Your task to perform on an android device: toggle priority inbox in the gmail app Image 0: 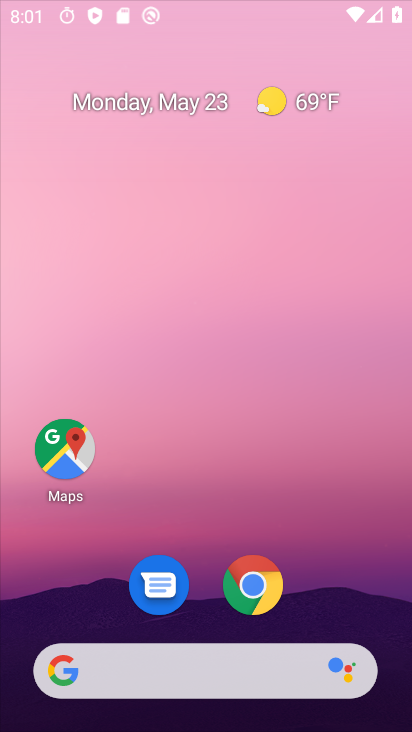
Step 0: drag from (238, 499) to (246, 58)
Your task to perform on an android device: toggle priority inbox in the gmail app Image 1: 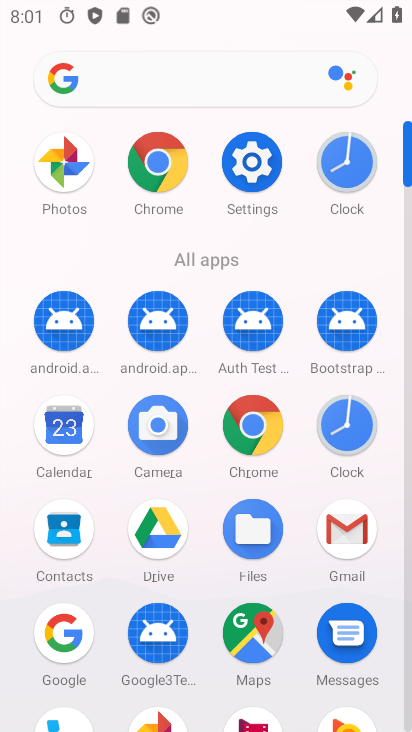
Step 1: click (249, 155)
Your task to perform on an android device: toggle priority inbox in the gmail app Image 2: 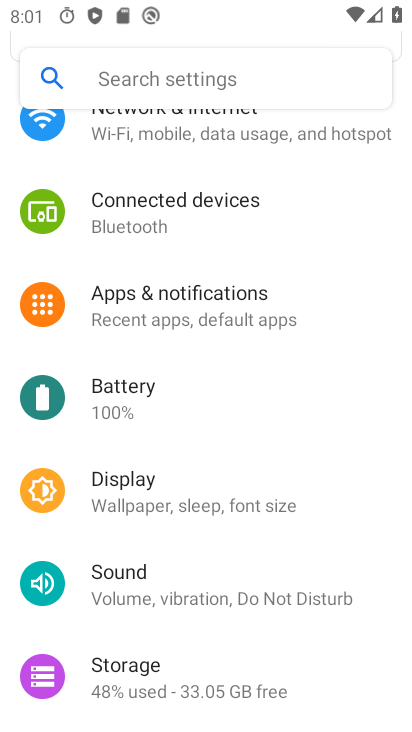
Step 2: drag from (218, 508) to (251, 142)
Your task to perform on an android device: toggle priority inbox in the gmail app Image 3: 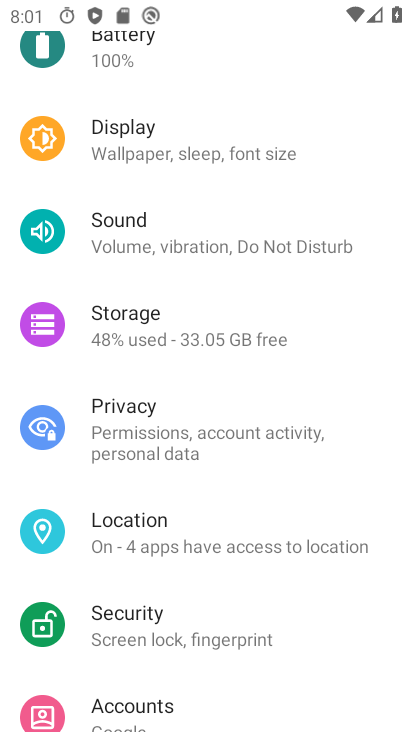
Step 3: drag from (221, 484) to (291, 117)
Your task to perform on an android device: toggle priority inbox in the gmail app Image 4: 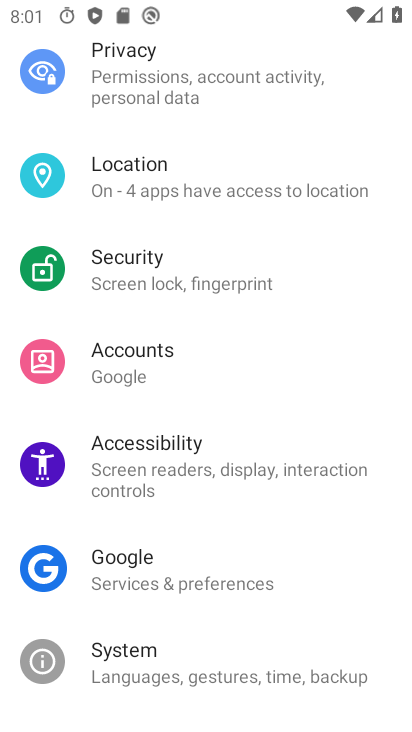
Step 4: drag from (223, 452) to (261, 171)
Your task to perform on an android device: toggle priority inbox in the gmail app Image 5: 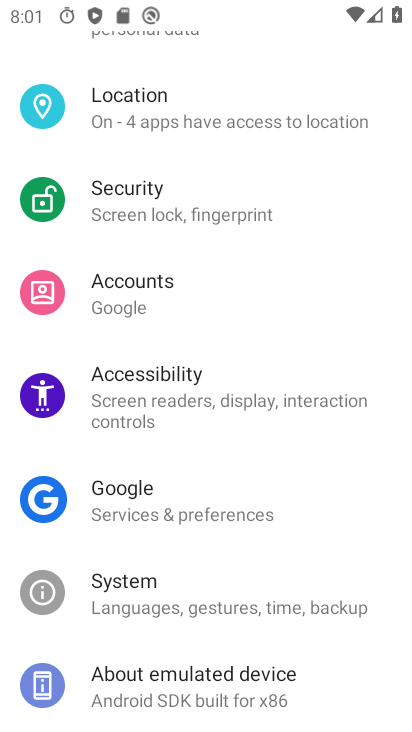
Step 5: click (186, 675)
Your task to perform on an android device: toggle priority inbox in the gmail app Image 6: 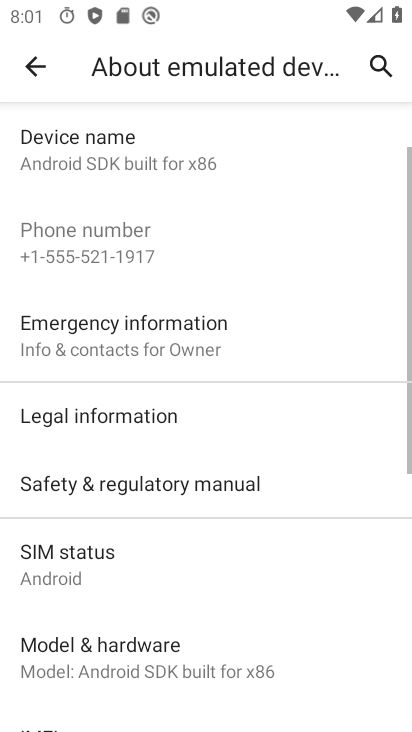
Step 6: task complete